Your task to perform on an android device: turn off notifications settings in the gmail app Image 0: 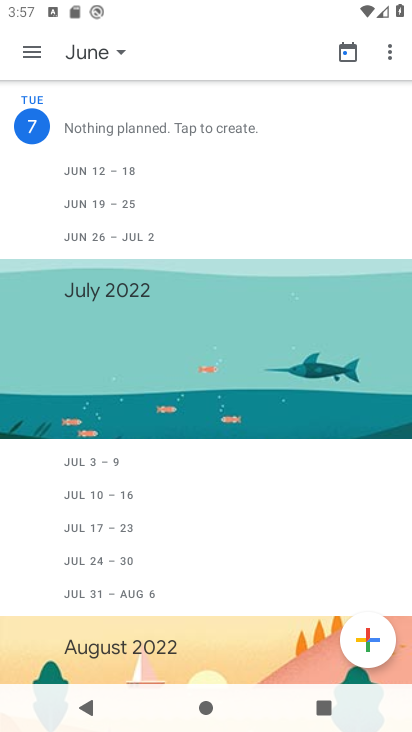
Step 0: press home button
Your task to perform on an android device: turn off notifications settings in the gmail app Image 1: 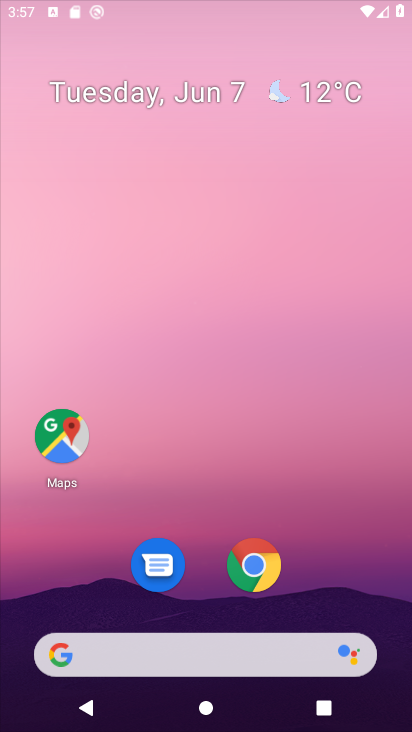
Step 1: drag from (200, 668) to (201, 63)
Your task to perform on an android device: turn off notifications settings in the gmail app Image 2: 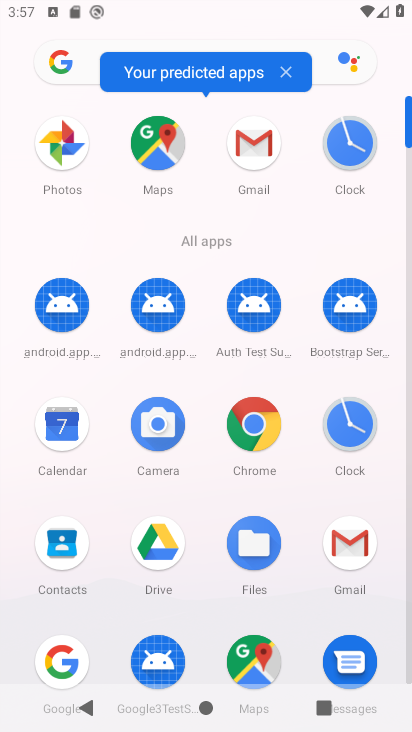
Step 2: click (337, 541)
Your task to perform on an android device: turn off notifications settings in the gmail app Image 3: 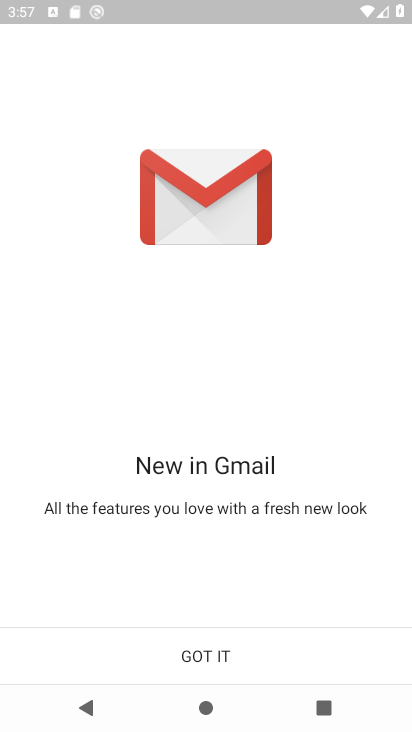
Step 3: click (267, 650)
Your task to perform on an android device: turn off notifications settings in the gmail app Image 4: 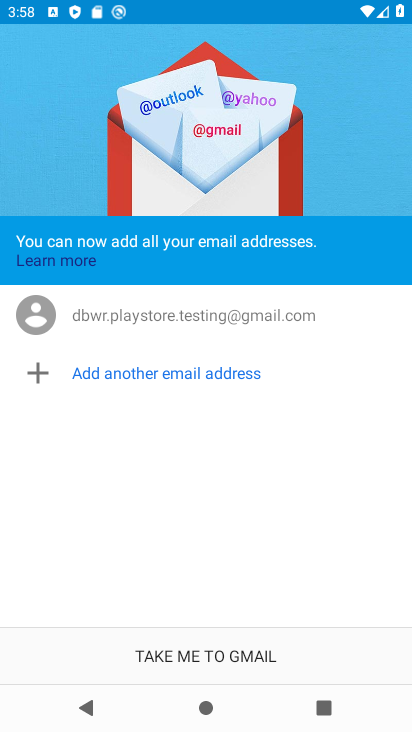
Step 4: click (267, 650)
Your task to perform on an android device: turn off notifications settings in the gmail app Image 5: 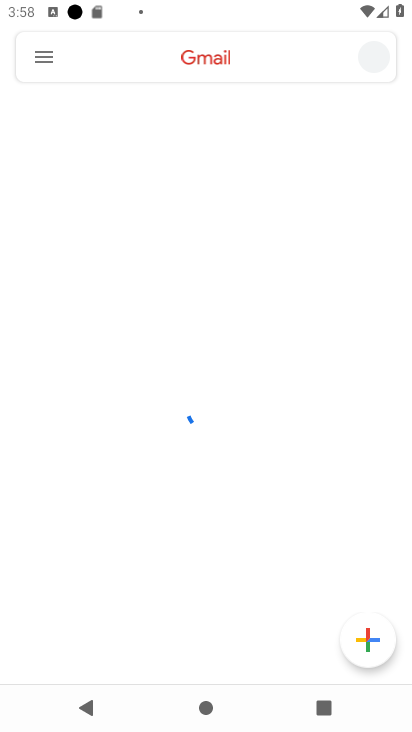
Step 5: click (26, 58)
Your task to perform on an android device: turn off notifications settings in the gmail app Image 6: 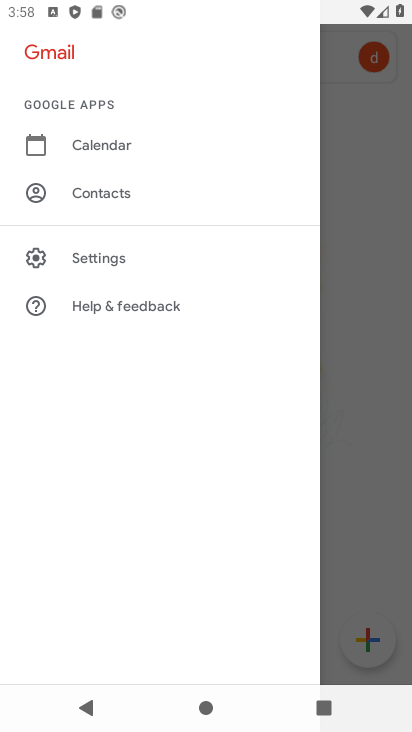
Step 6: click (111, 260)
Your task to perform on an android device: turn off notifications settings in the gmail app Image 7: 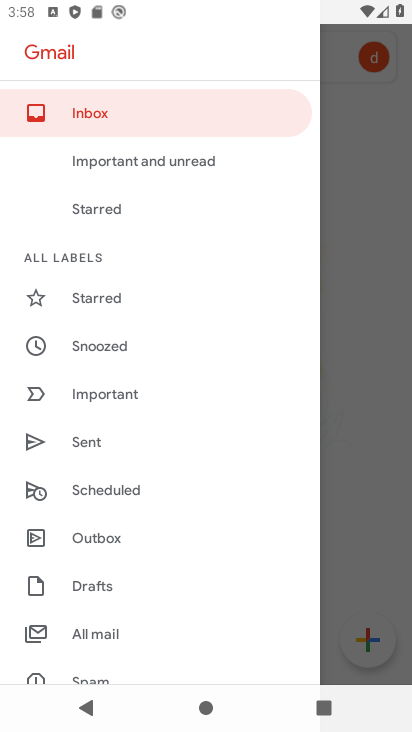
Step 7: drag from (165, 643) to (180, 156)
Your task to perform on an android device: turn off notifications settings in the gmail app Image 8: 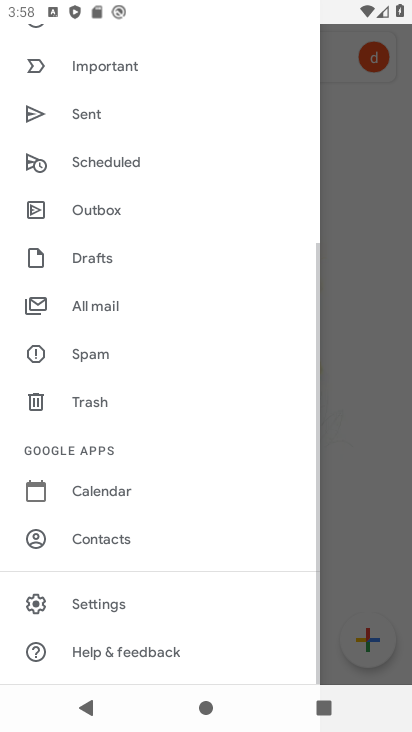
Step 8: click (82, 606)
Your task to perform on an android device: turn off notifications settings in the gmail app Image 9: 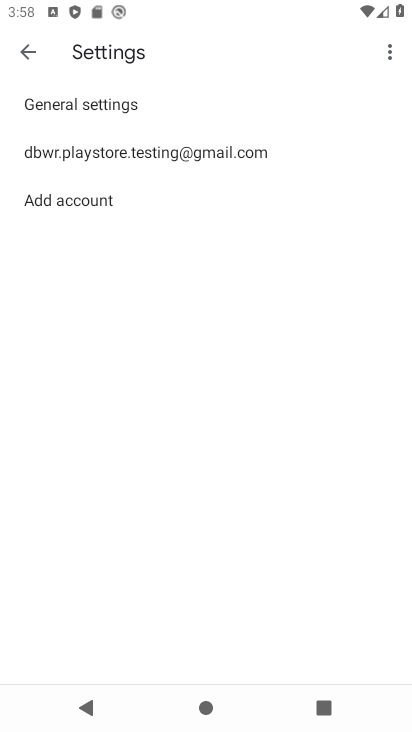
Step 9: click (201, 165)
Your task to perform on an android device: turn off notifications settings in the gmail app Image 10: 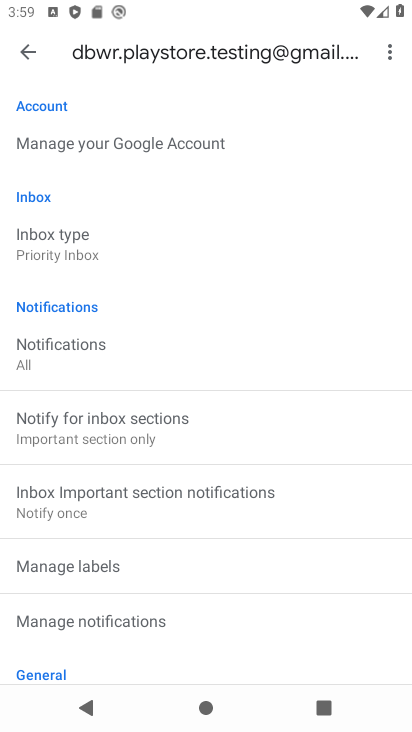
Step 10: click (120, 613)
Your task to perform on an android device: turn off notifications settings in the gmail app Image 11: 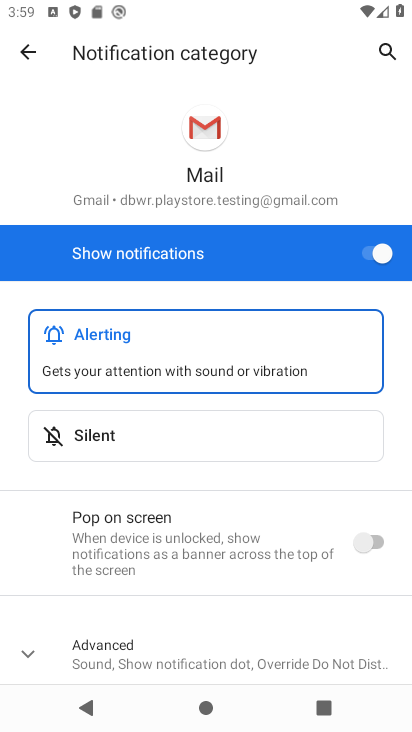
Step 11: click (367, 247)
Your task to perform on an android device: turn off notifications settings in the gmail app Image 12: 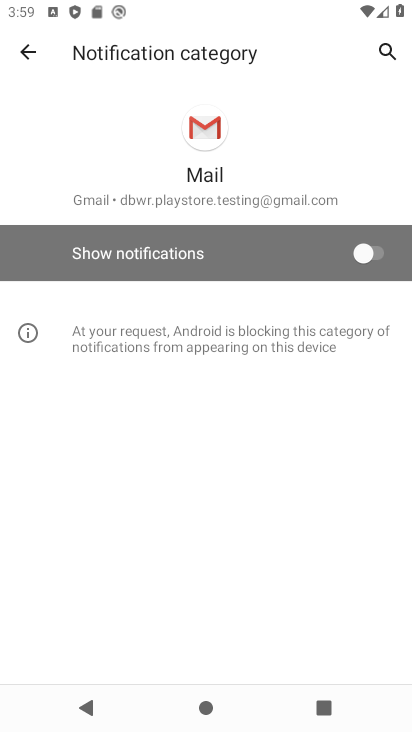
Step 12: task complete